Your task to perform on an android device: Open battery settings Image 0: 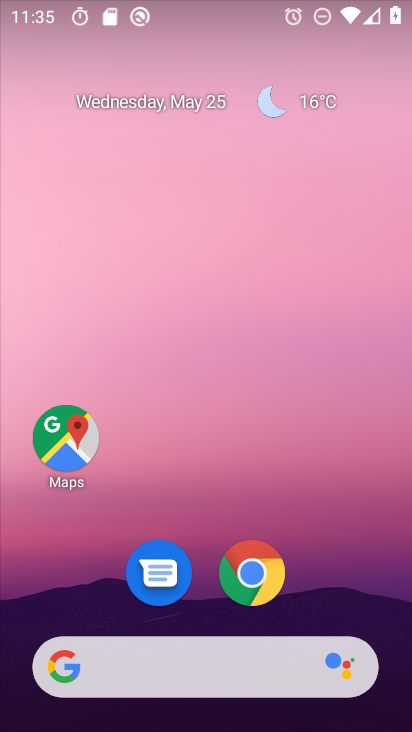
Step 0: drag from (347, 632) to (345, 5)
Your task to perform on an android device: Open battery settings Image 1: 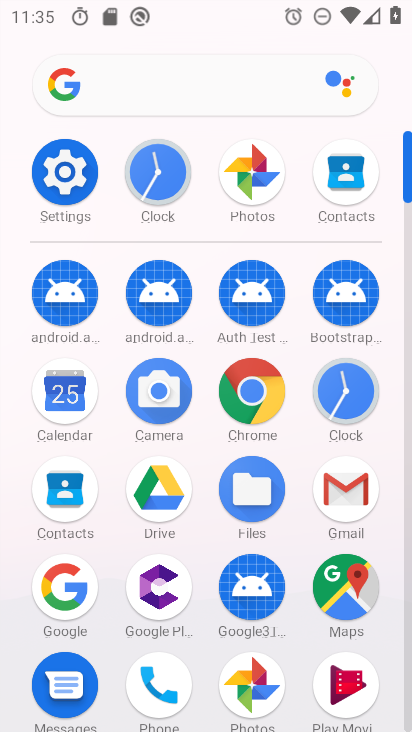
Step 1: click (58, 174)
Your task to perform on an android device: Open battery settings Image 2: 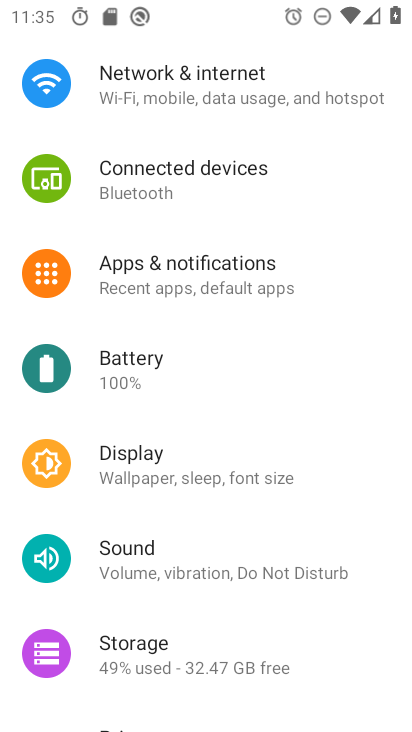
Step 2: click (104, 369)
Your task to perform on an android device: Open battery settings Image 3: 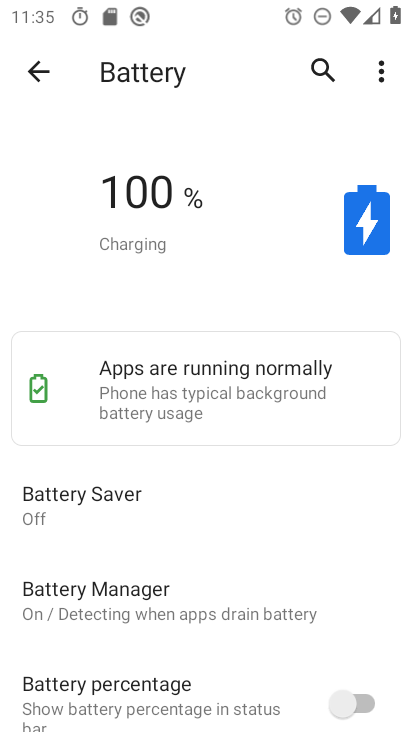
Step 3: task complete